Your task to perform on an android device: Go to Wikipedia Image 0: 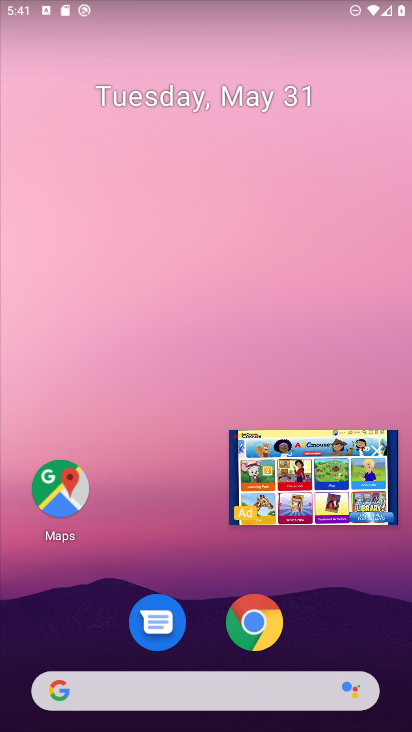
Step 0: click (383, 463)
Your task to perform on an android device: Go to Wikipedia Image 1: 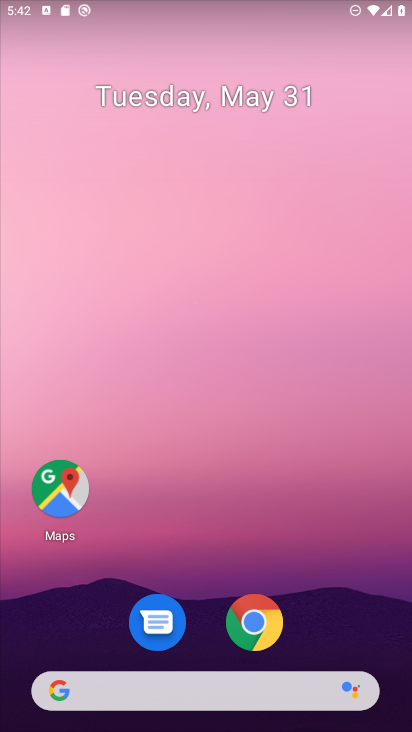
Step 1: drag from (220, 660) to (253, 38)
Your task to perform on an android device: Go to Wikipedia Image 2: 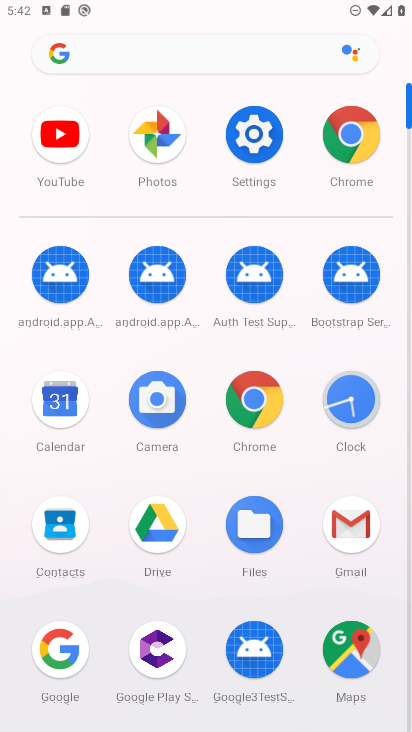
Step 2: click (257, 427)
Your task to perform on an android device: Go to Wikipedia Image 3: 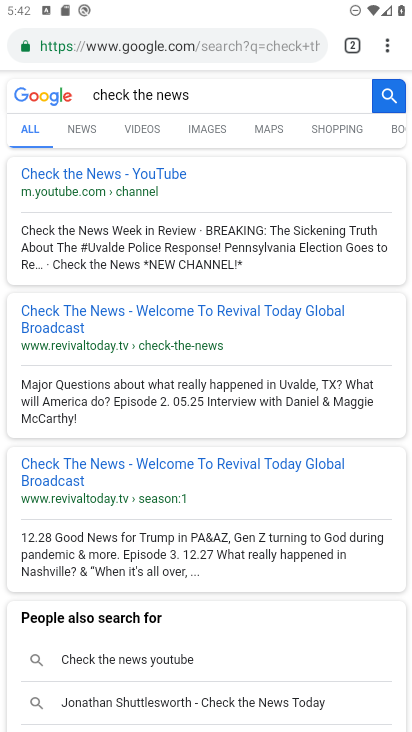
Step 3: drag from (385, 49) to (281, 80)
Your task to perform on an android device: Go to Wikipedia Image 4: 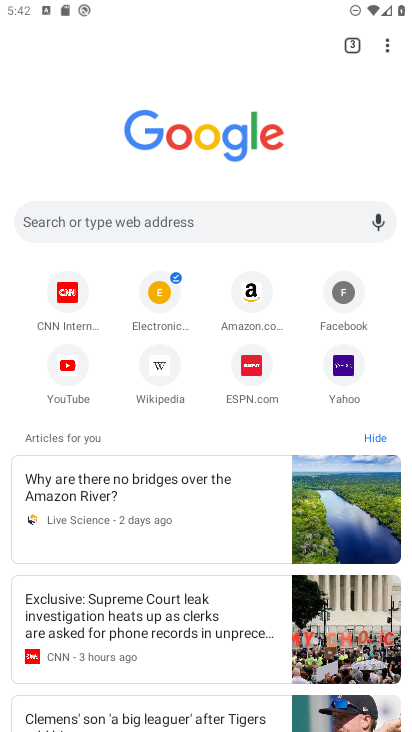
Step 4: click (168, 378)
Your task to perform on an android device: Go to Wikipedia Image 5: 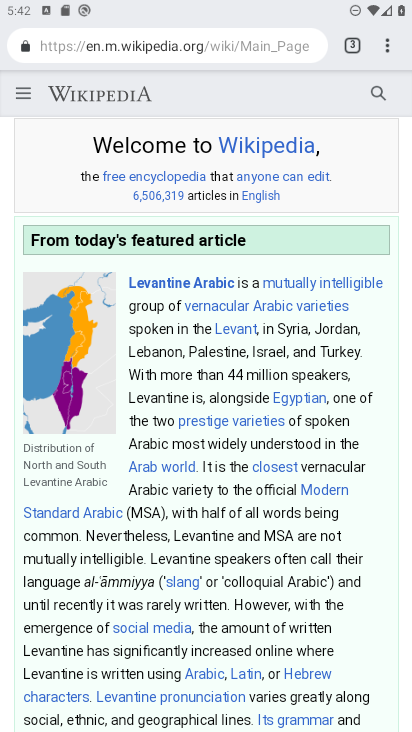
Step 5: task complete